Your task to perform on an android device: Show me recent news Image 0: 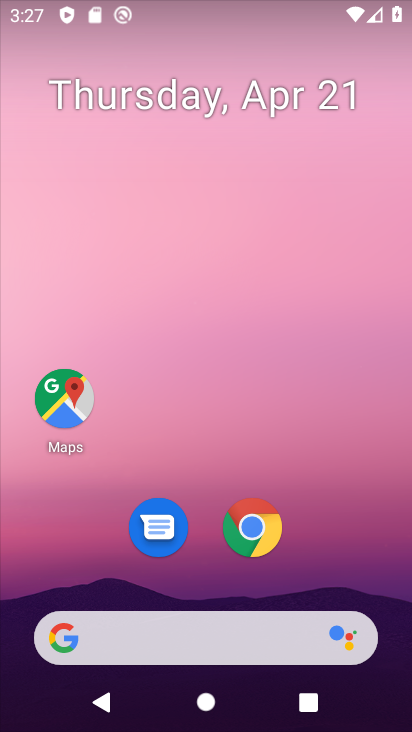
Step 0: drag from (341, 567) to (293, 181)
Your task to perform on an android device: Show me recent news Image 1: 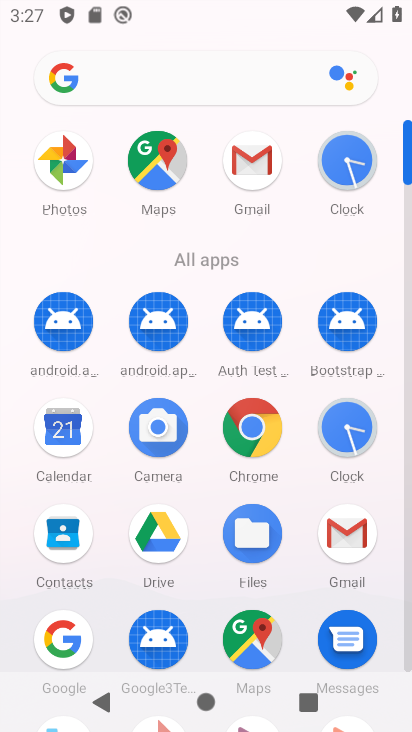
Step 1: click (48, 628)
Your task to perform on an android device: Show me recent news Image 2: 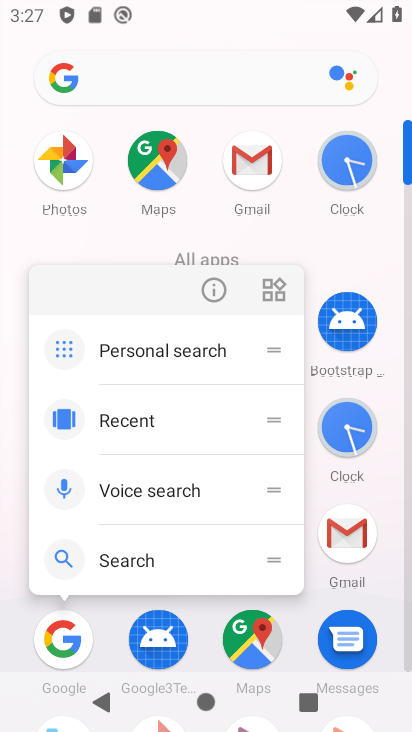
Step 2: click (57, 637)
Your task to perform on an android device: Show me recent news Image 3: 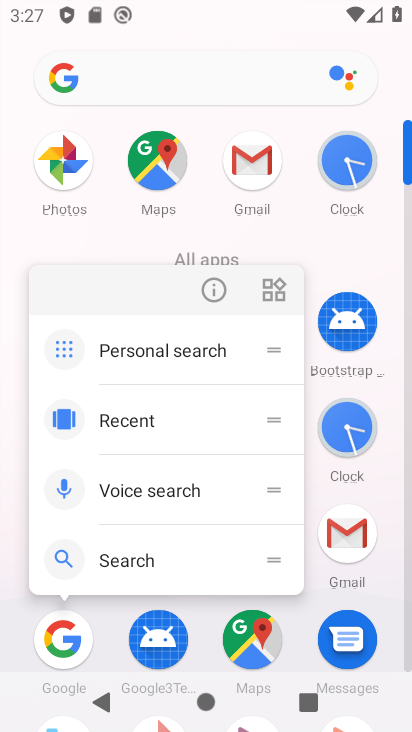
Step 3: click (63, 643)
Your task to perform on an android device: Show me recent news Image 4: 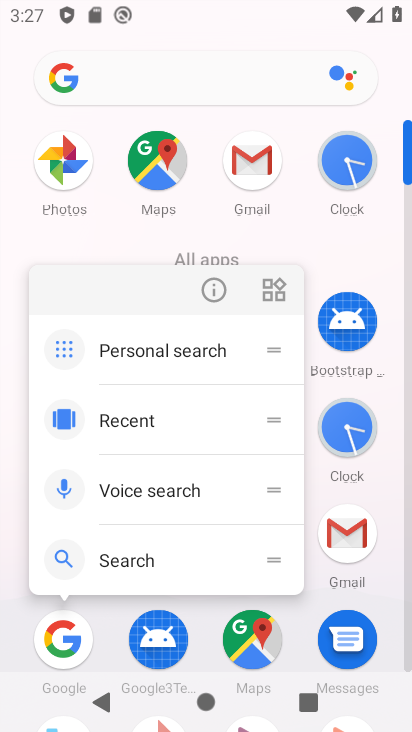
Step 4: click (64, 644)
Your task to perform on an android device: Show me recent news Image 5: 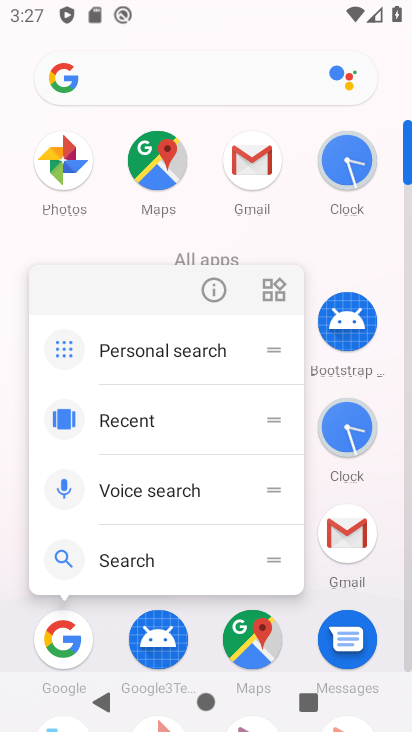
Step 5: click (67, 640)
Your task to perform on an android device: Show me recent news Image 6: 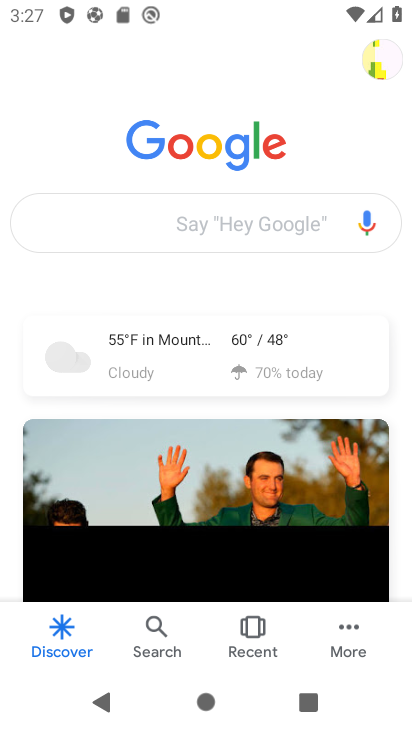
Step 6: task complete